Your task to perform on an android device: open app "McDonald's" Image 0: 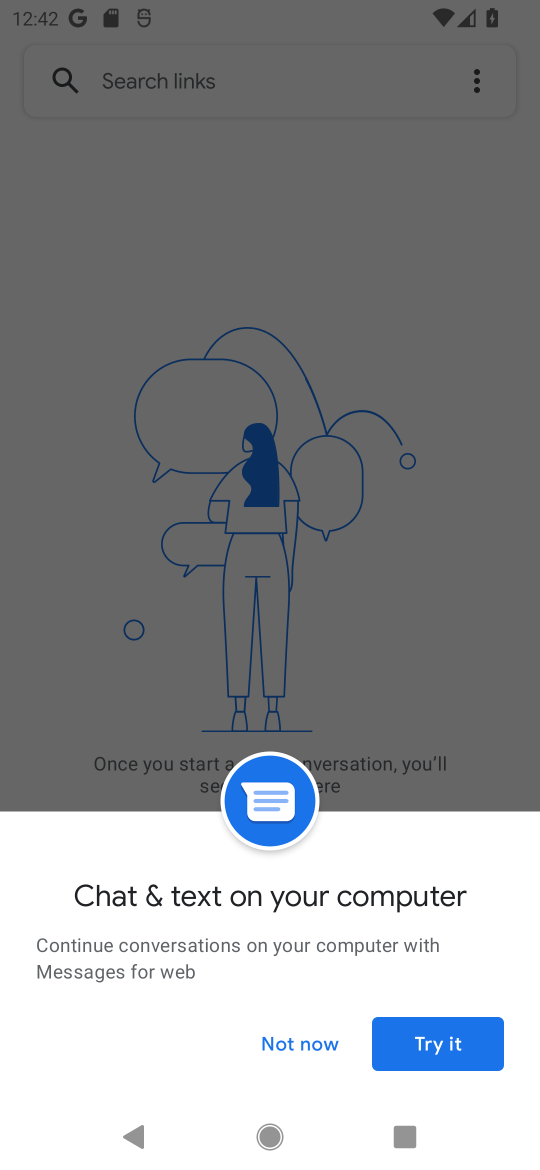
Step 0: press back button
Your task to perform on an android device: open app "McDonald's" Image 1: 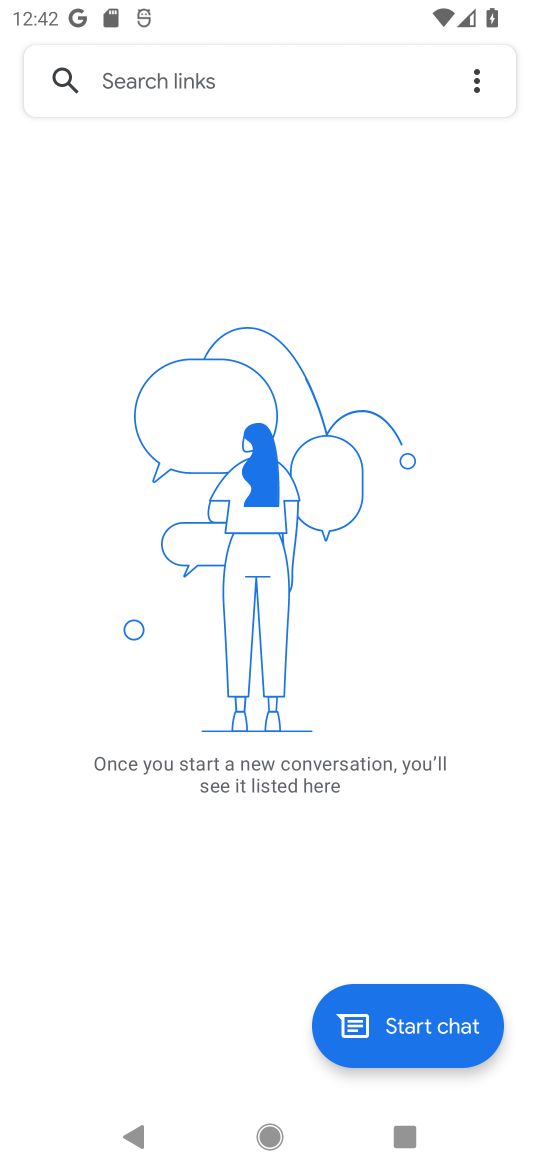
Step 1: press back button
Your task to perform on an android device: open app "McDonald's" Image 2: 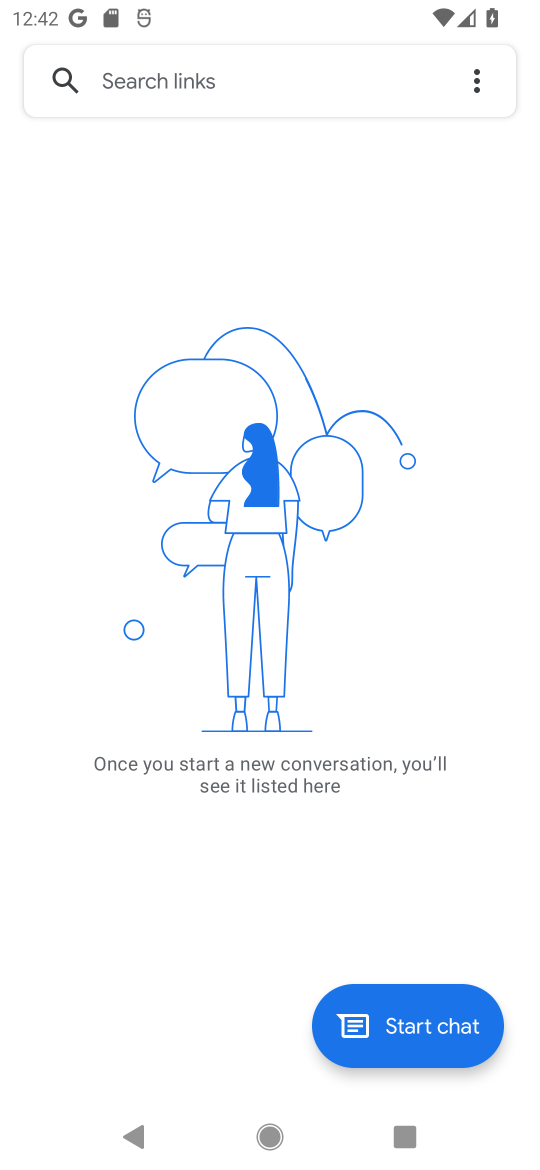
Step 2: press home button
Your task to perform on an android device: open app "McDonald's" Image 3: 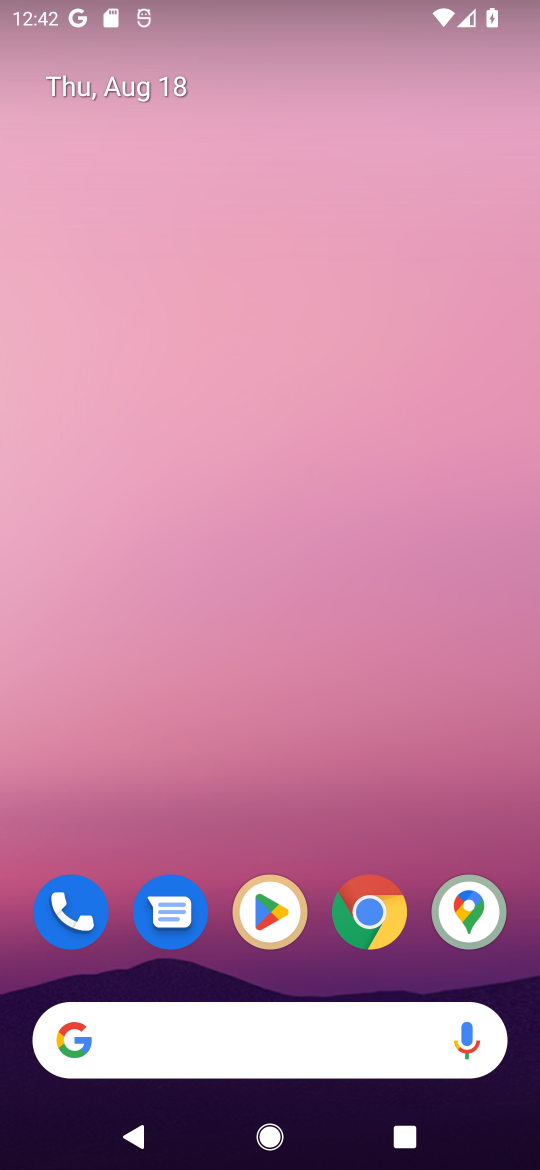
Step 3: click (258, 905)
Your task to perform on an android device: open app "McDonald's" Image 4: 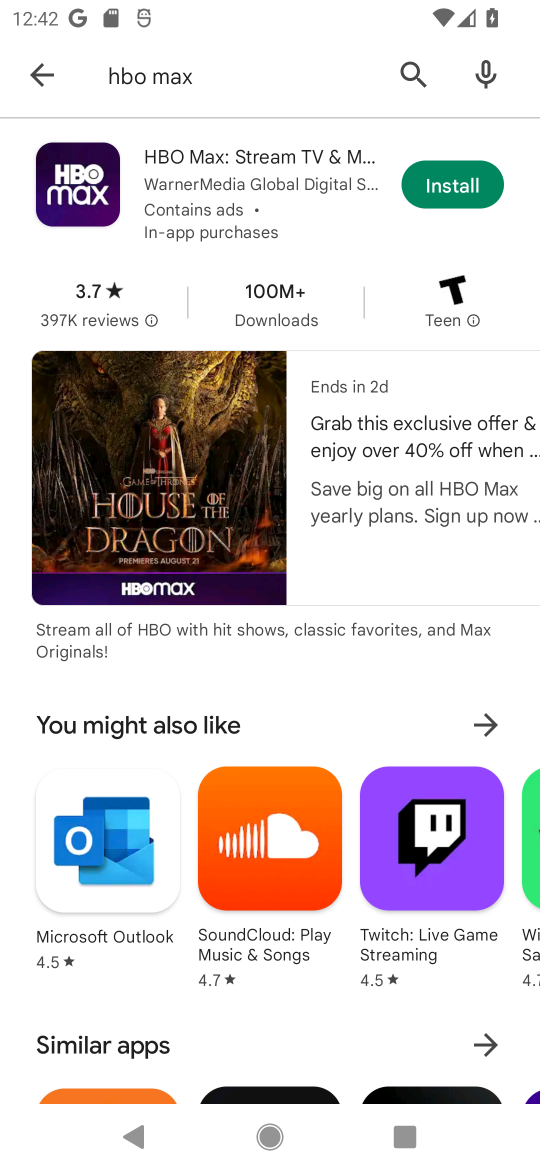
Step 4: click (404, 69)
Your task to perform on an android device: open app "McDonald's" Image 5: 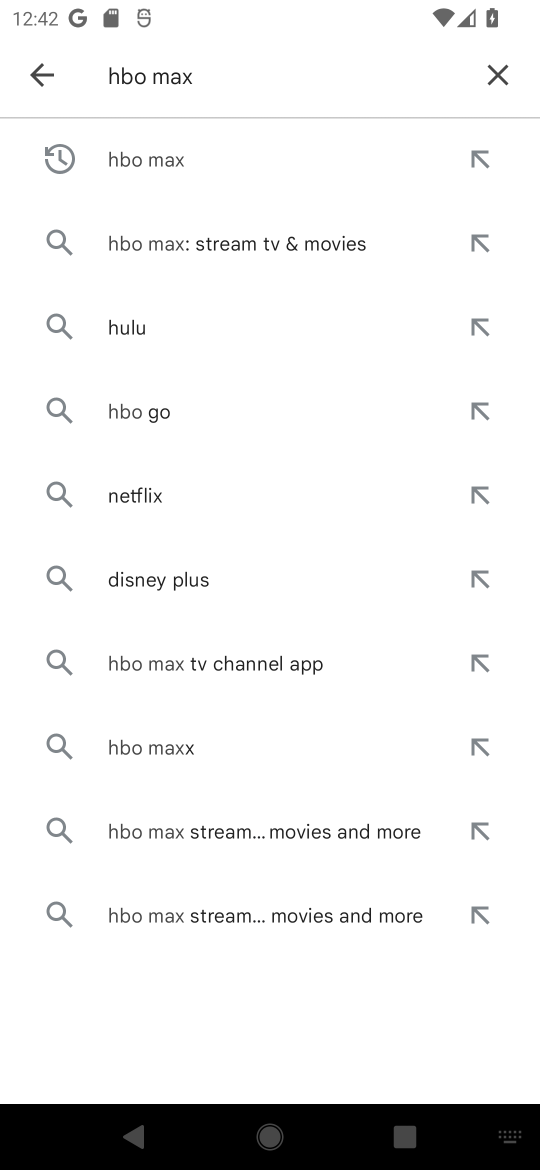
Step 5: click (507, 68)
Your task to perform on an android device: open app "McDonald's" Image 6: 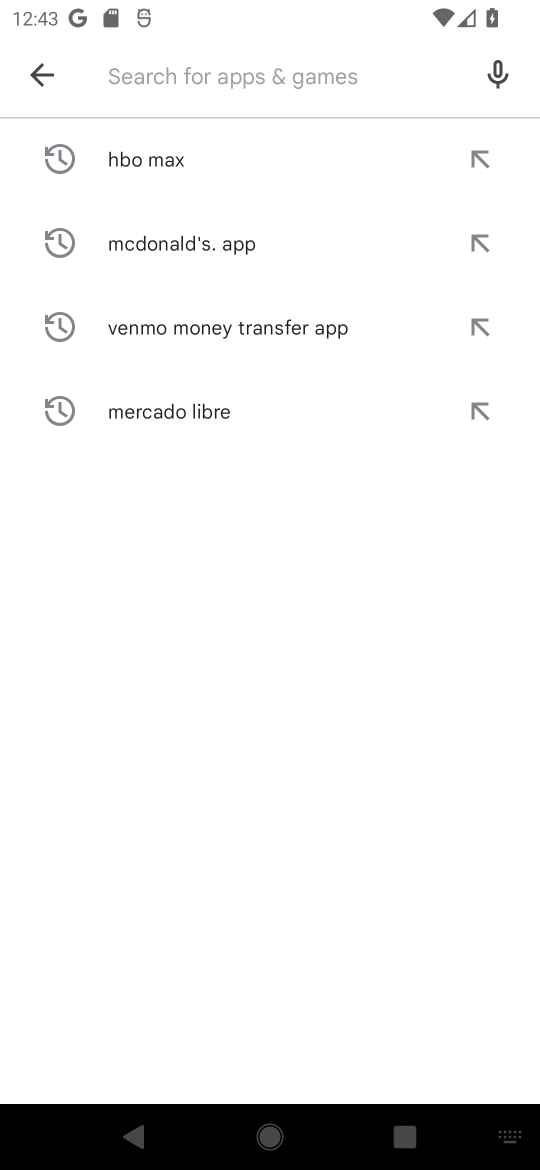
Step 6: type "McDonald's"
Your task to perform on an android device: open app "McDonald's" Image 7: 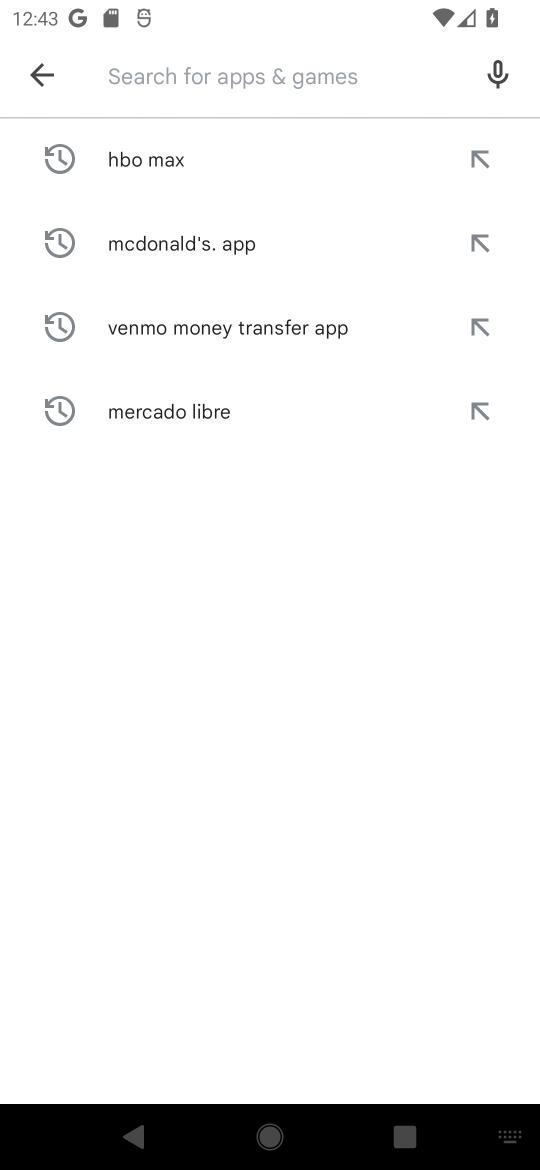
Step 7: click (390, 718)
Your task to perform on an android device: open app "McDonald's" Image 8: 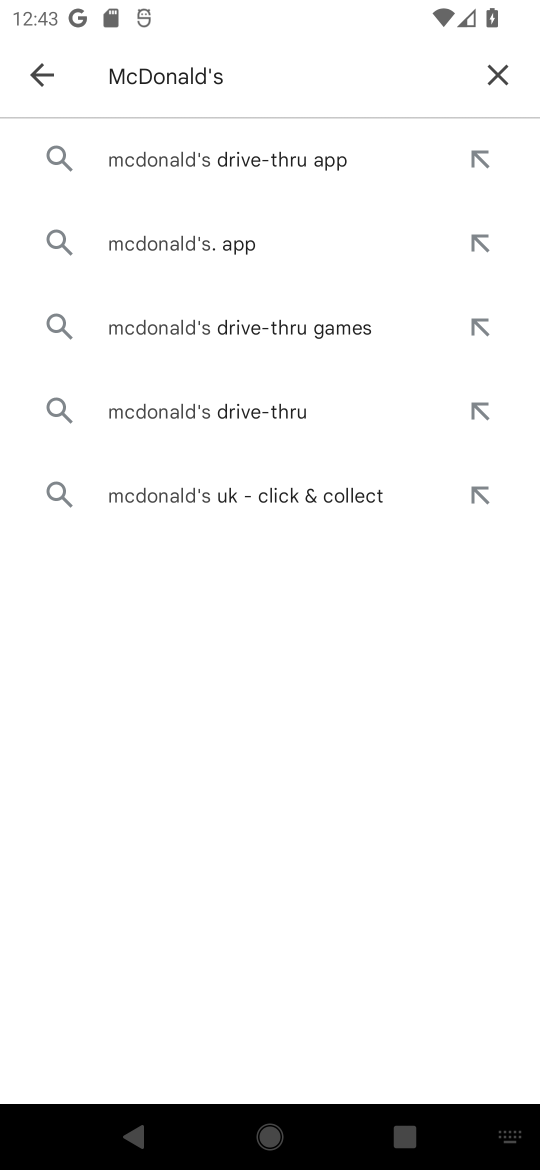
Step 8: click (201, 234)
Your task to perform on an android device: open app "McDonald's" Image 9: 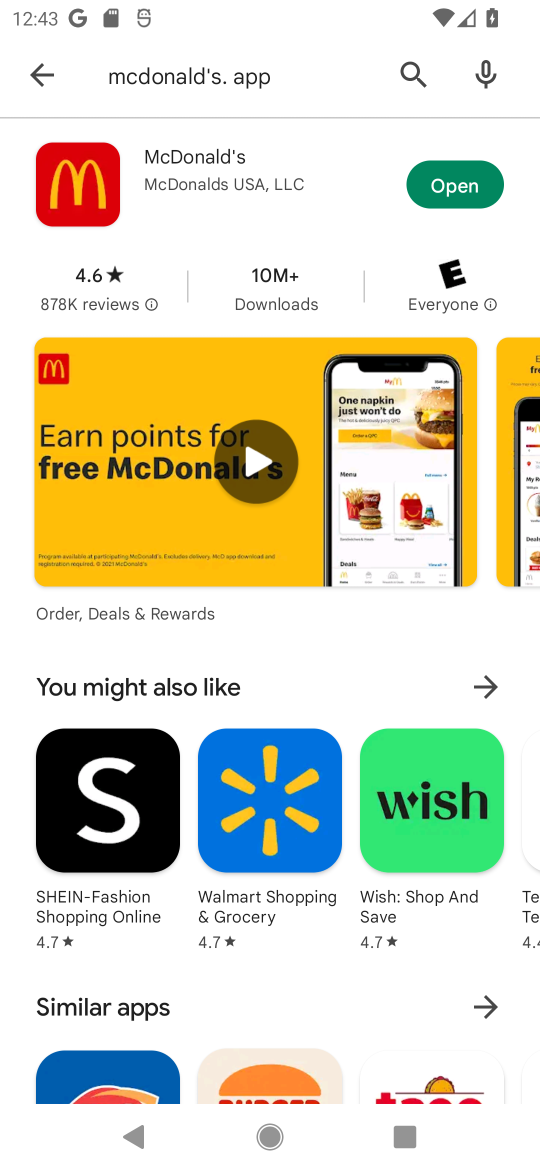
Step 9: click (445, 190)
Your task to perform on an android device: open app "McDonald's" Image 10: 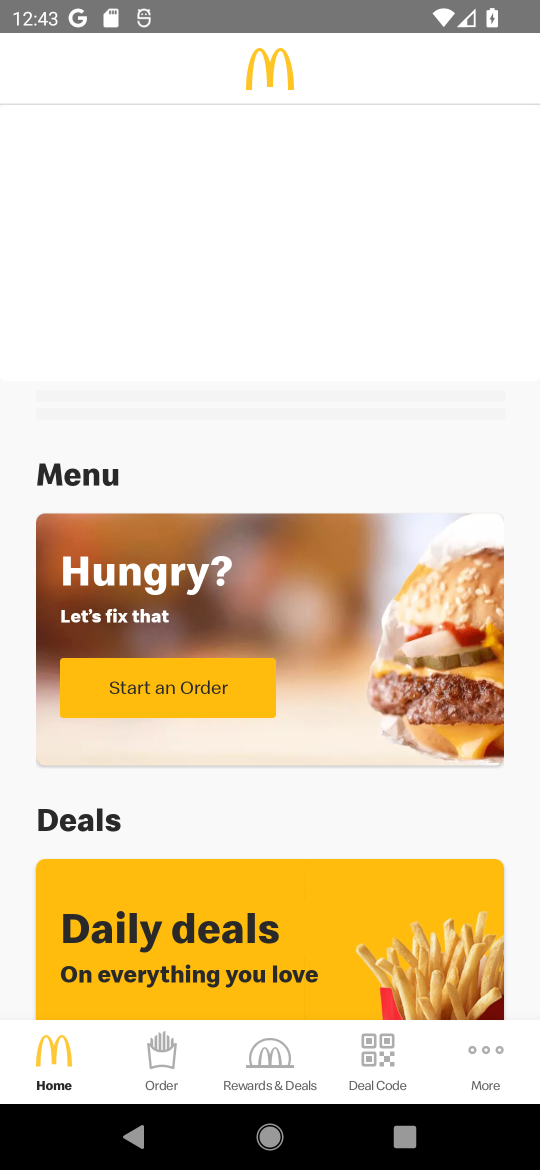
Step 10: task complete